Your task to perform on an android device: Check the news Image 0: 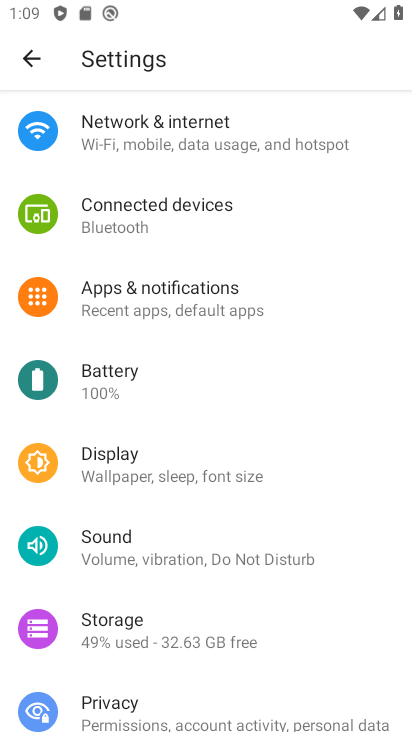
Step 0: press home button
Your task to perform on an android device: Check the news Image 1: 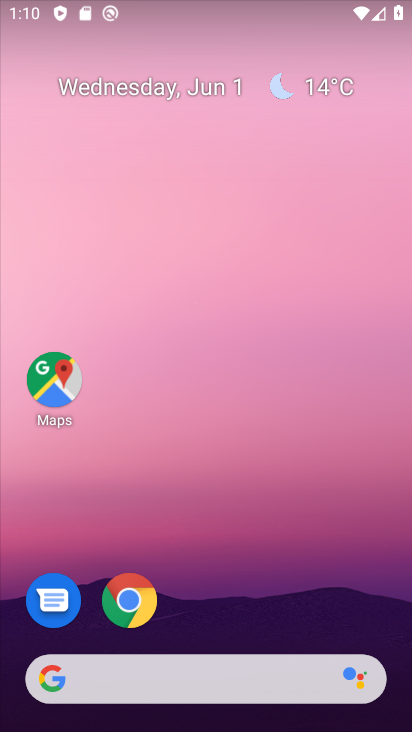
Step 1: task complete